Your task to perform on an android device: check out phone information Image 0: 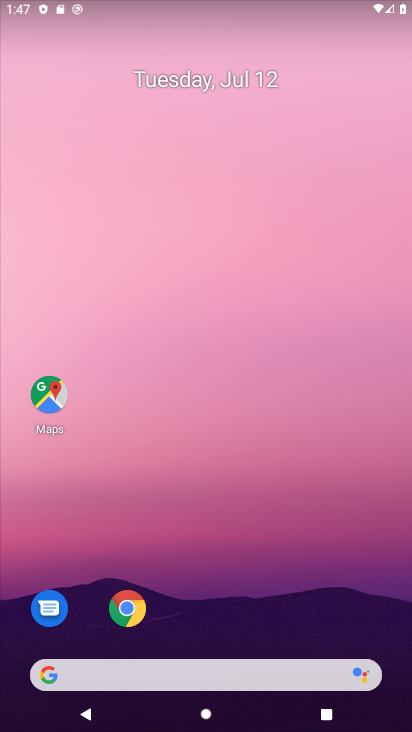
Step 0: drag from (237, 20) to (88, 8)
Your task to perform on an android device: check out phone information Image 1: 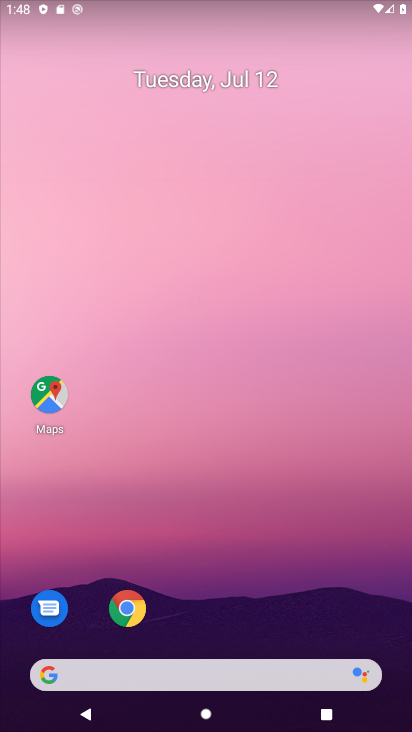
Step 1: drag from (227, 434) to (227, 109)
Your task to perform on an android device: check out phone information Image 2: 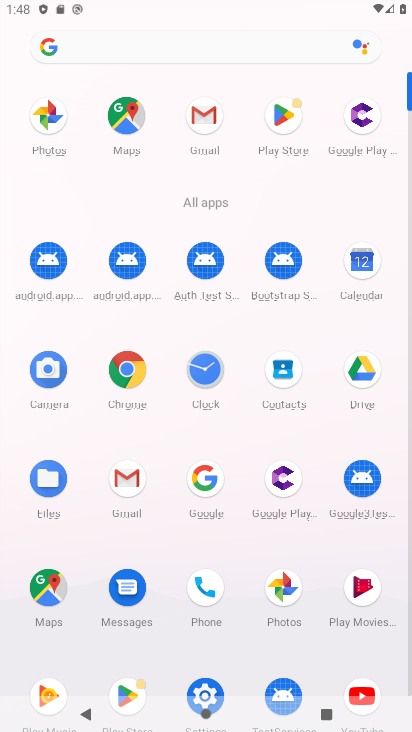
Step 2: drag from (191, 555) to (268, 64)
Your task to perform on an android device: check out phone information Image 3: 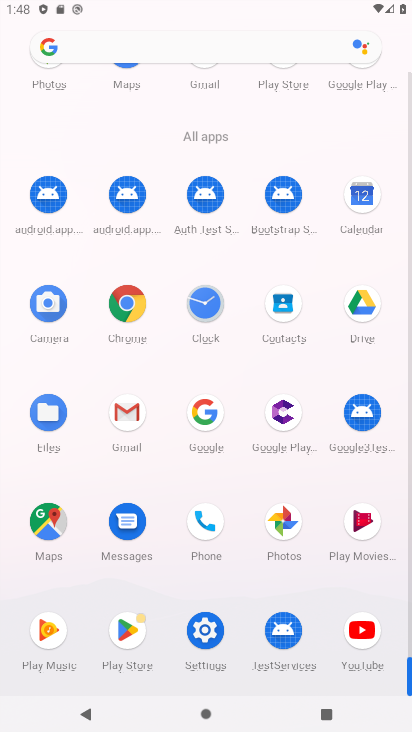
Step 3: click (202, 650)
Your task to perform on an android device: check out phone information Image 4: 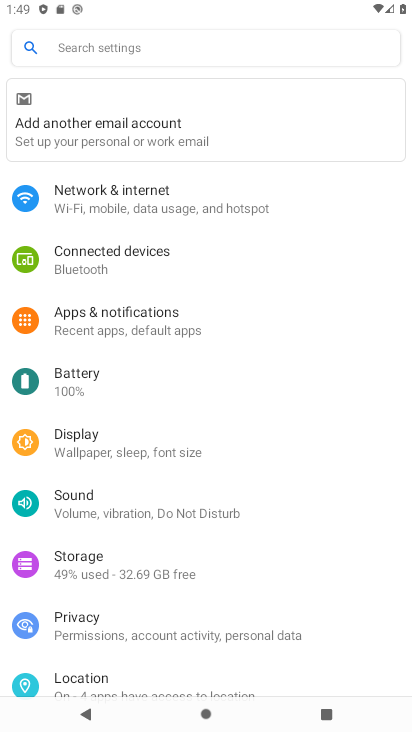
Step 4: drag from (171, 550) to (207, 235)
Your task to perform on an android device: check out phone information Image 5: 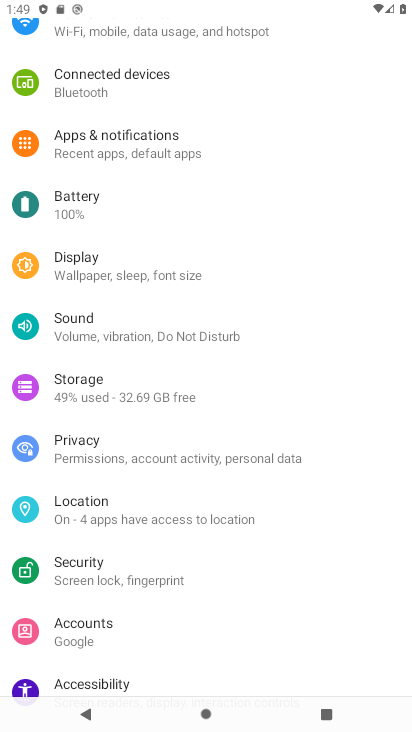
Step 5: drag from (138, 387) to (140, 343)
Your task to perform on an android device: check out phone information Image 6: 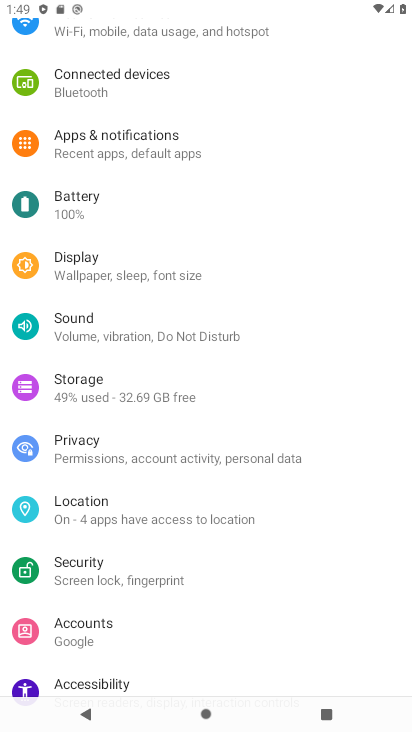
Step 6: drag from (193, 461) to (226, 278)
Your task to perform on an android device: check out phone information Image 7: 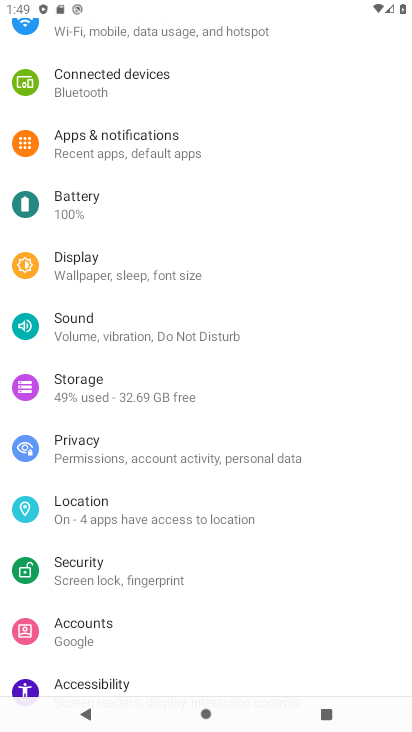
Step 7: drag from (91, 534) to (109, 193)
Your task to perform on an android device: check out phone information Image 8: 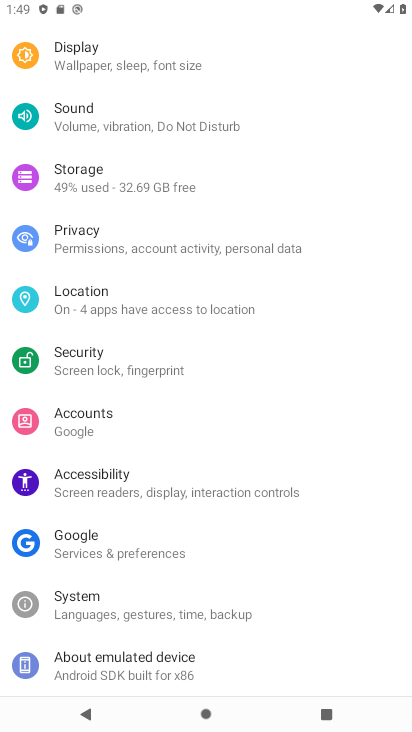
Step 8: click (102, 668)
Your task to perform on an android device: check out phone information Image 9: 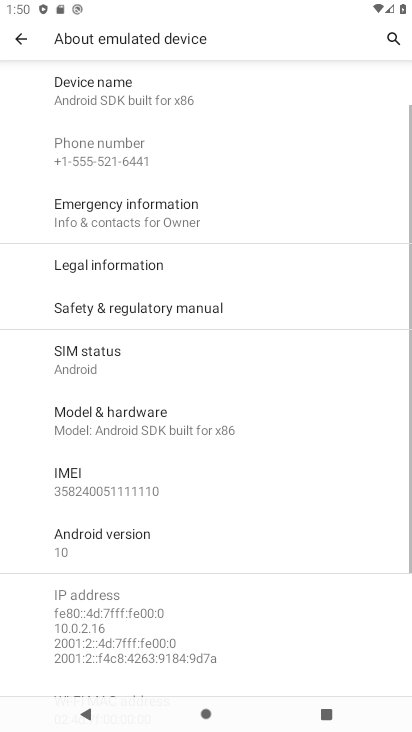
Step 9: task complete